Your task to perform on an android device: Open Yahoo.com Image 0: 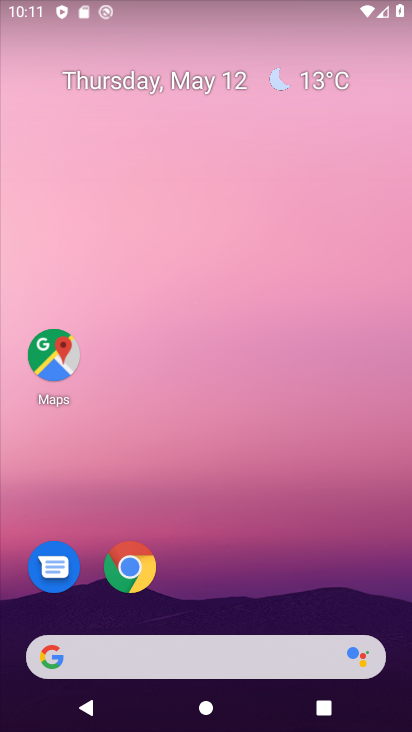
Step 0: click (137, 574)
Your task to perform on an android device: Open Yahoo.com Image 1: 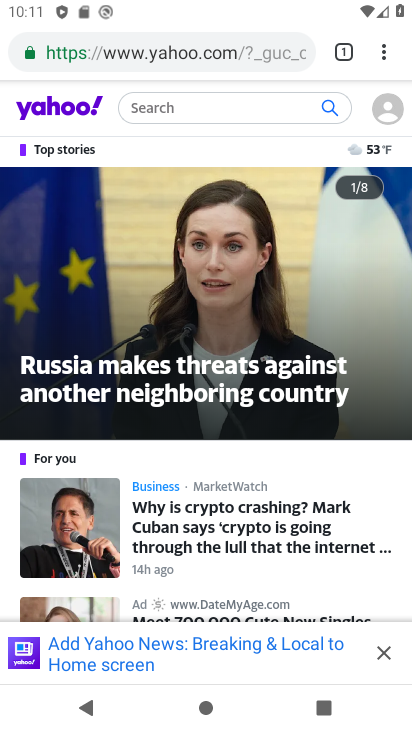
Step 1: task complete